Your task to perform on an android device: turn on data saver in the chrome app Image 0: 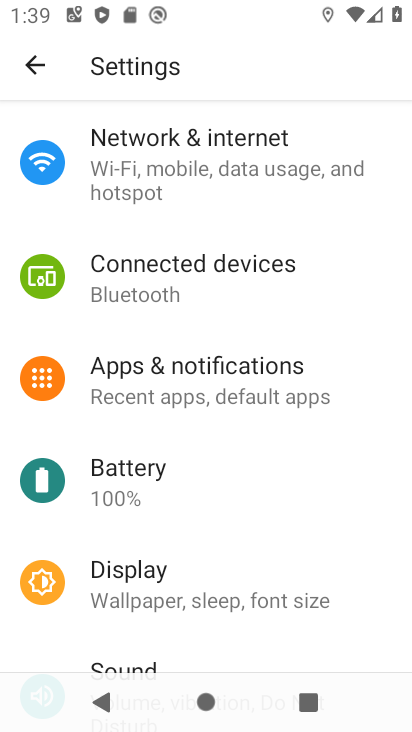
Step 0: press home button
Your task to perform on an android device: turn on data saver in the chrome app Image 1: 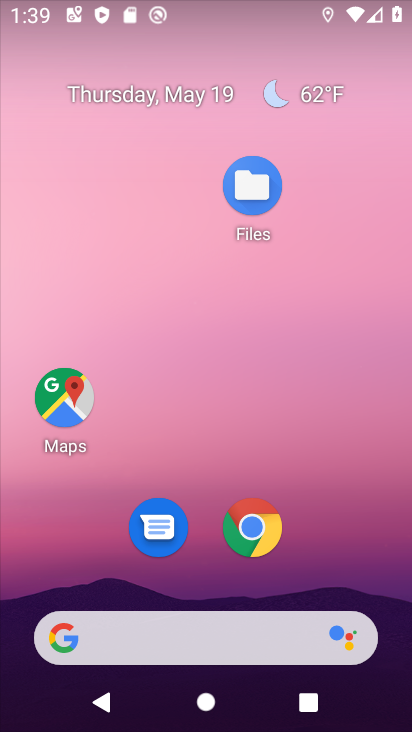
Step 1: drag from (371, 458) to (367, 131)
Your task to perform on an android device: turn on data saver in the chrome app Image 2: 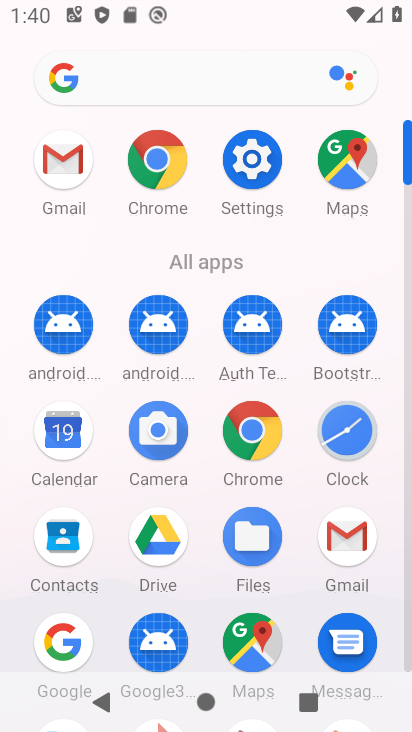
Step 2: click (170, 190)
Your task to perform on an android device: turn on data saver in the chrome app Image 3: 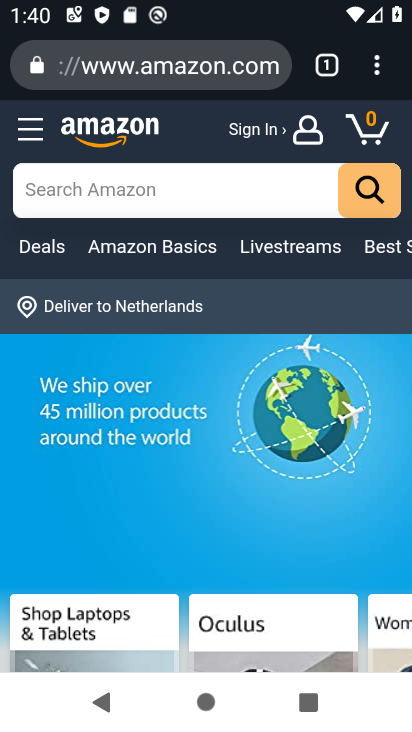
Step 3: drag from (377, 62) to (160, 579)
Your task to perform on an android device: turn on data saver in the chrome app Image 4: 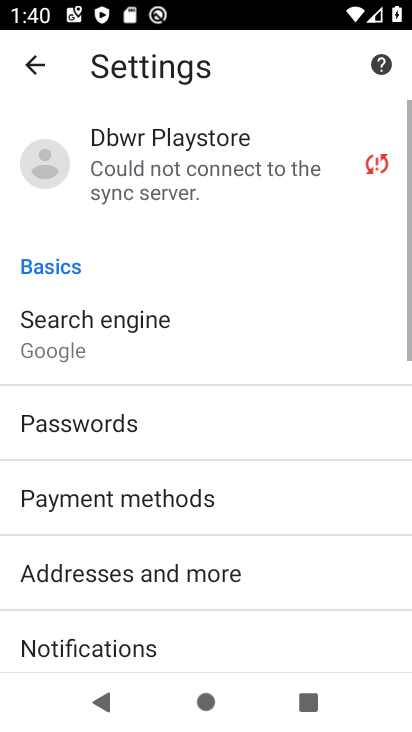
Step 4: drag from (224, 610) to (234, 265)
Your task to perform on an android device: turn on data saver in the chrome app Image 5: 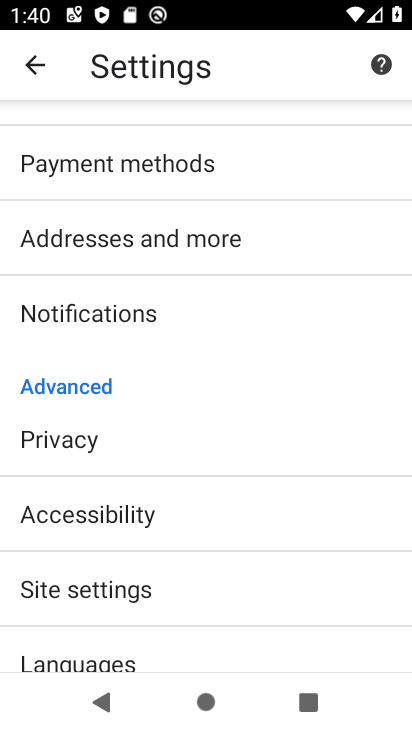
Step 5: drag from (244, 382) to (266, 238)
Your task to perform on an android device: turn on data saver in the chrome app Image 6: 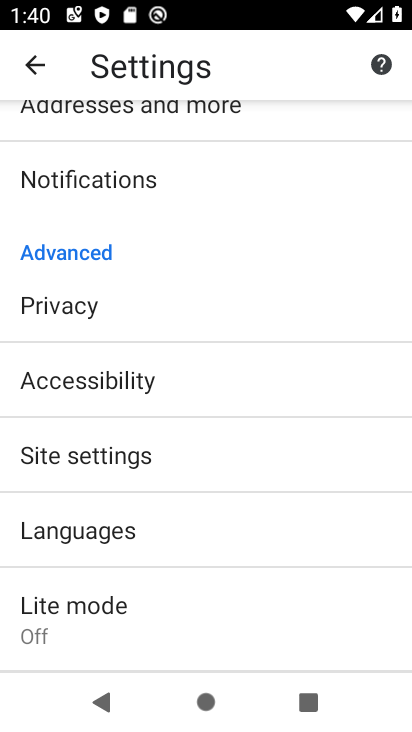
Step 6: click (123, 610)
Your task to perform on an android device: turn on data saver in the chrome app Image 7: 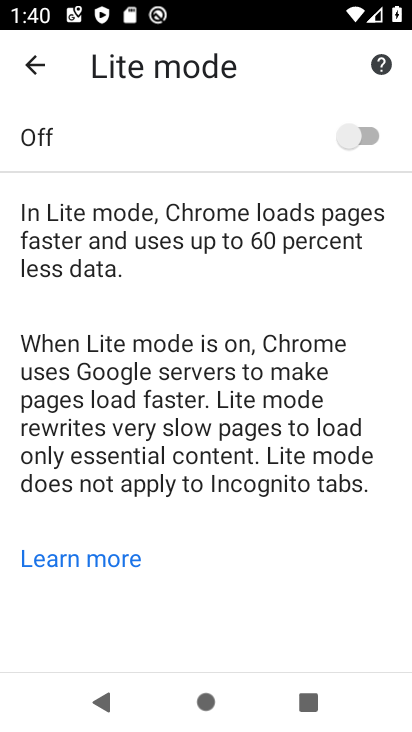
Step 7: click (370, 141)
Your task to perform on an android device: turn on data saver in the chrome app Image 8: 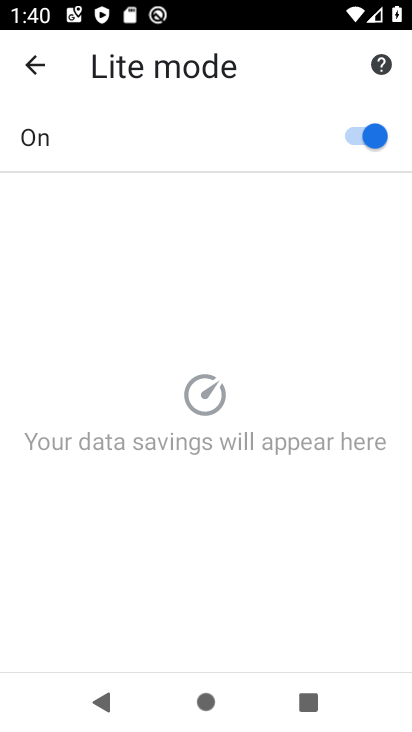
Step 8: task complete